Your task to perform on an android device: Play the last video I watched on Youtube Image 0: 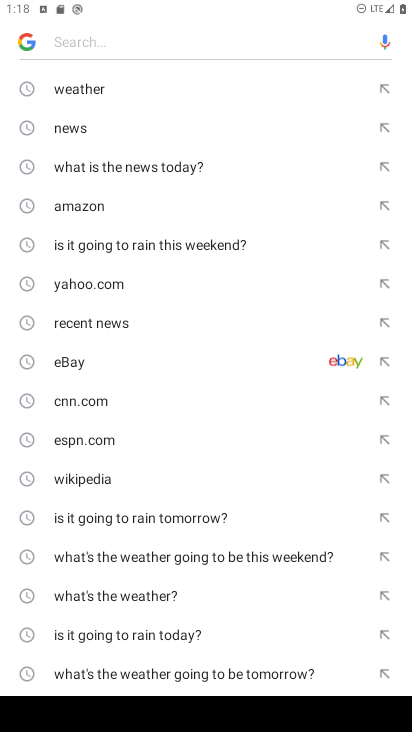
Step 0: press home button
Your task to perform on an android device: Play the last video I watched on Youtube Image 1: 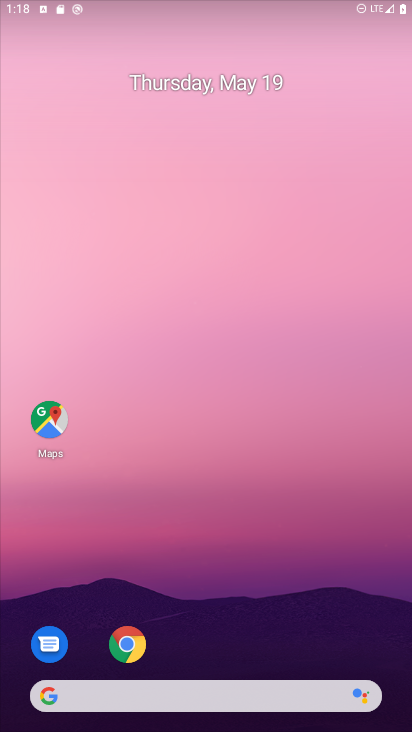
Step 1: drag from (344, 622) to (202, 46)
Your task to perform on an android device: Play the last video I watched on Youtube Image 2: 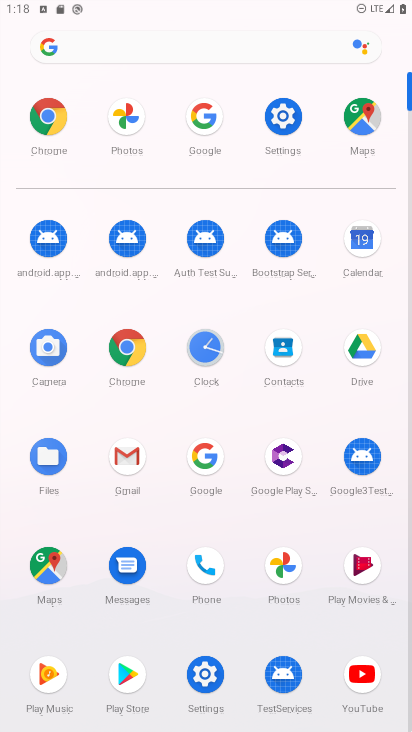
Step 2: click (374, 682)
Your task to perform on an android device: Play the last video I watched on Youtube Image 3: 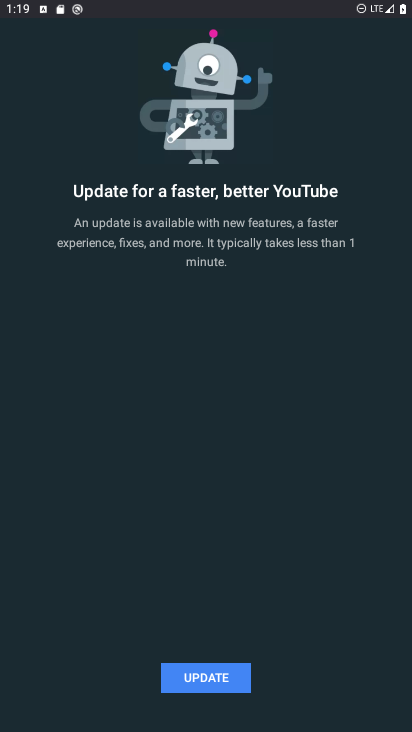
Step 3: click (197, 702)
Your task to perform on an android device: Play the last video I watched on Youtube Image 4: 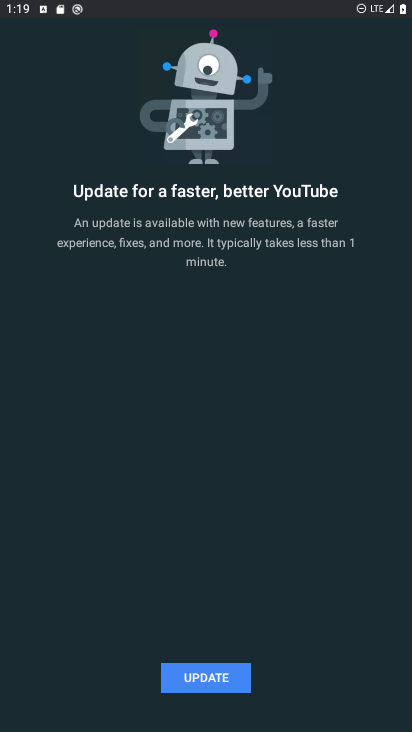
Step 4: click (188, 679)
Your task to perform on an android device: Play the last video I watched on Youtube Image 5: 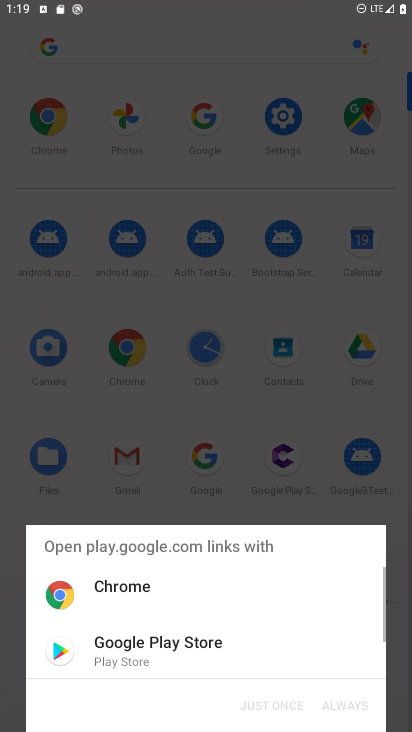
Step 5: click (138, 653)
Your task to perform on an android device: Play the last video I watched on Youtube Image 6: 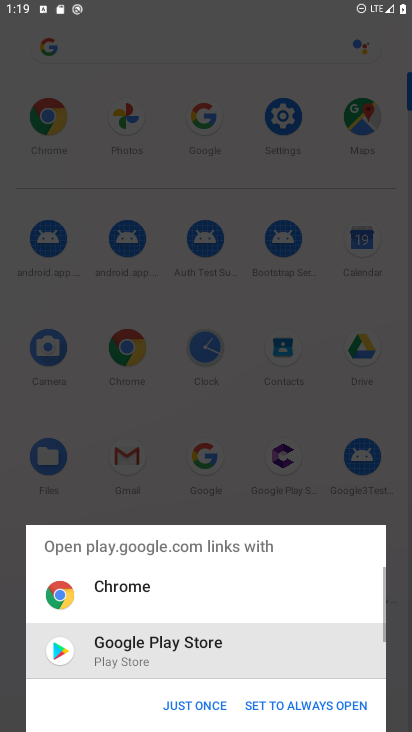
Step 6: click (191, 693)
Your task to perform on an android device: Play the last video I watched on Youtube Image 7: 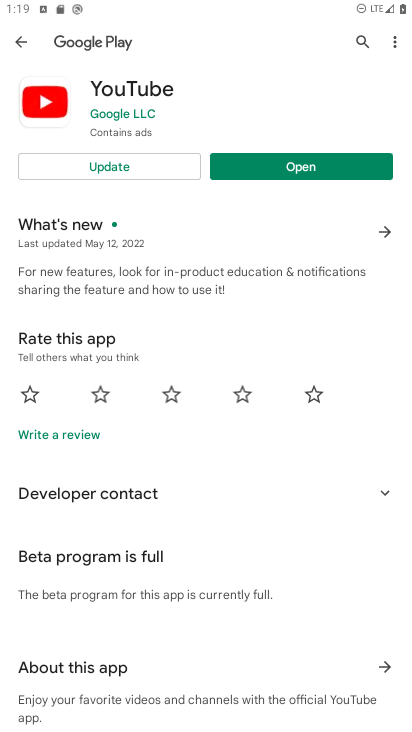
Step 7: click (101, 171)
Your task to perform on an android device: Play the last video I watched on Youtube Image 8: 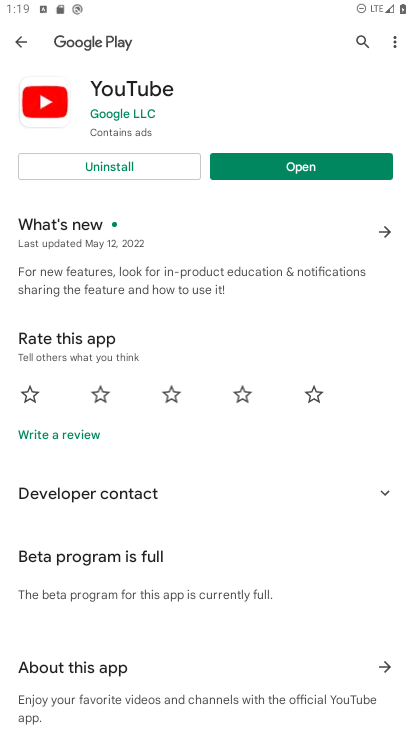
Step 8: click (324, 165)
Your task to perform on an android device: Play the last video I watched on Youtube Image 9: 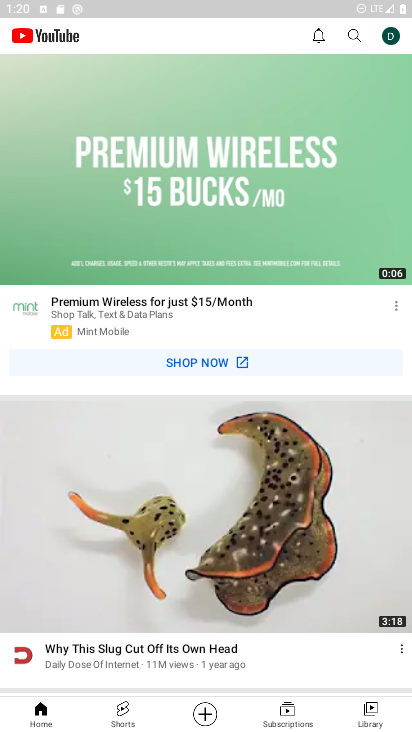
Step 9: task complete